Your task to perform on an android device: Is it going to rain this weekend? Image 0: 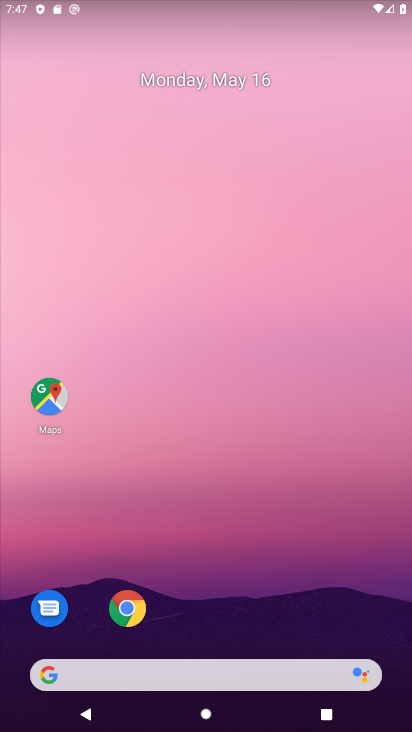
Step 0: drag from (260, 607) to (206, 126)
Your task to perform on an android device: Is it going to rain this weekend? Image 1: 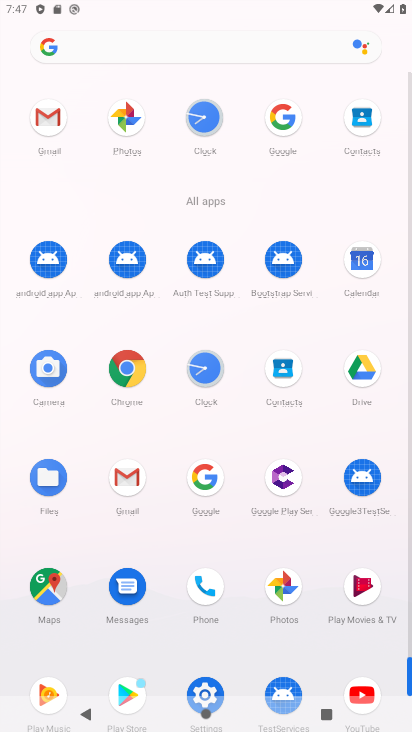
Step 1: click (278, 116)
Your task to perform on an android device: Is it going to rain this weekend? Image 2: 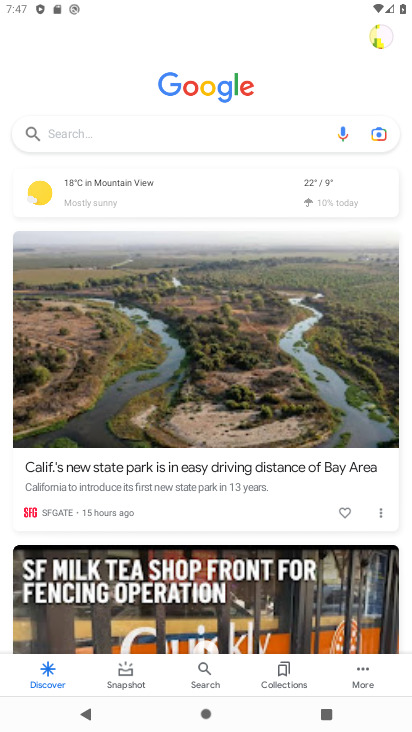
Step 2: click (327, 197)
Your task to perform on an android device: Is it going to rain this weekend? Image 3: 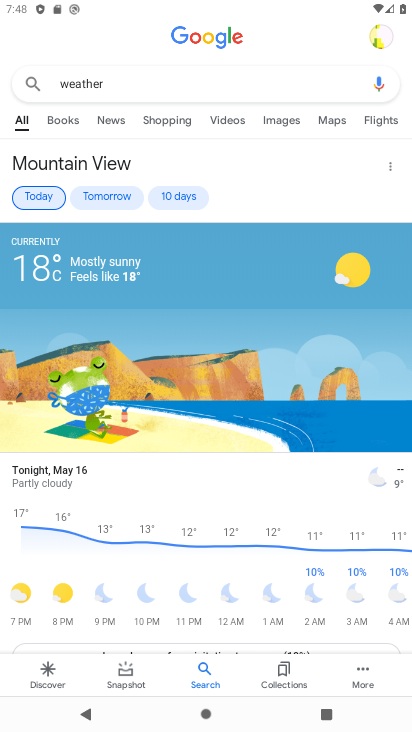
Step 3: click (176, 196)
Your task to perform on an android device: Is it going to rain this weekend? Image 4: 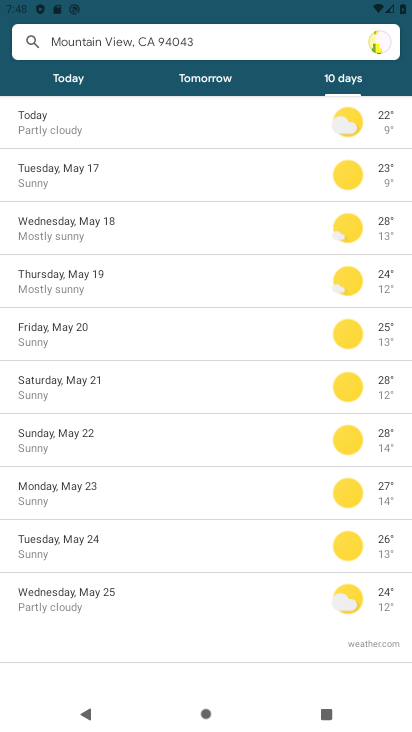
Step 4: task complete